Your task to perform on an android device: Open battery settings Image 0: 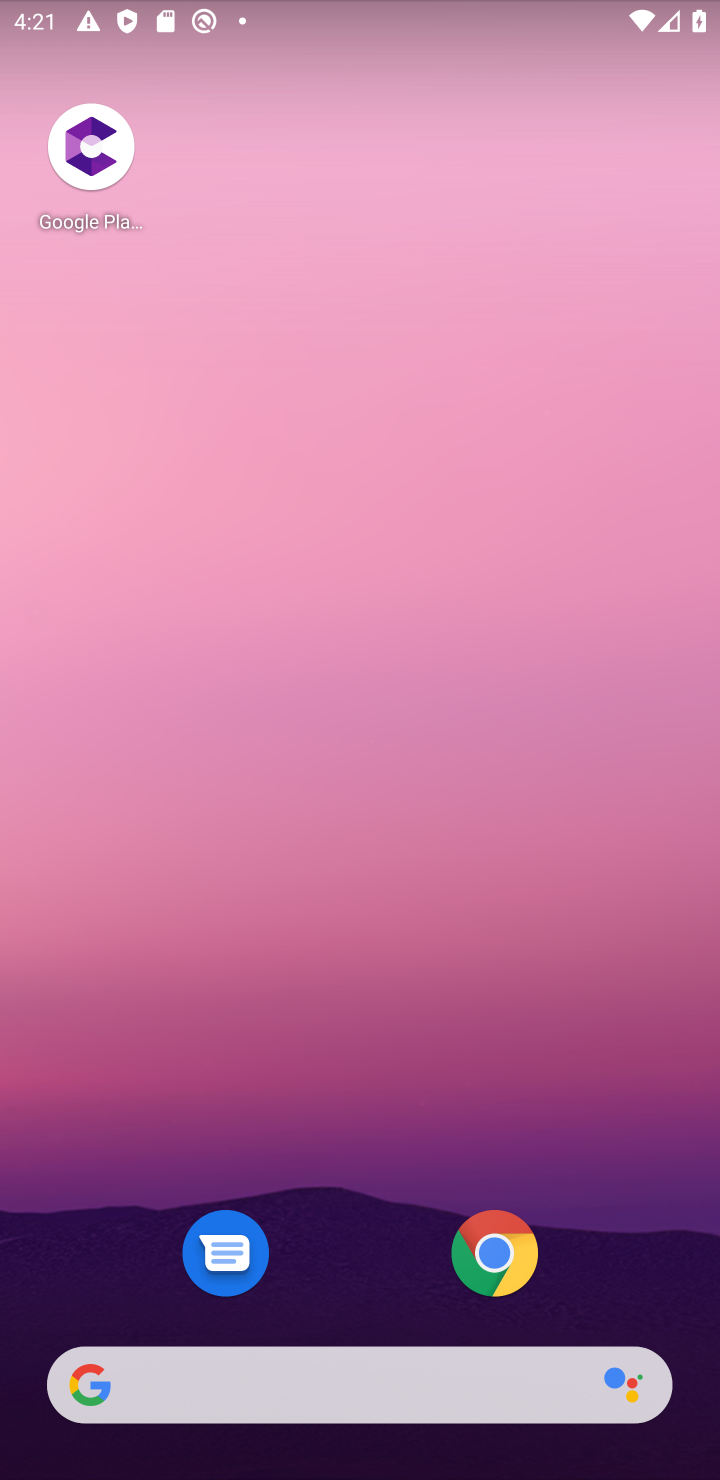
Step 0: drag from (364, 1305) to (334, 268)
Your task to perform on an android device: Open battery settings Image 1: 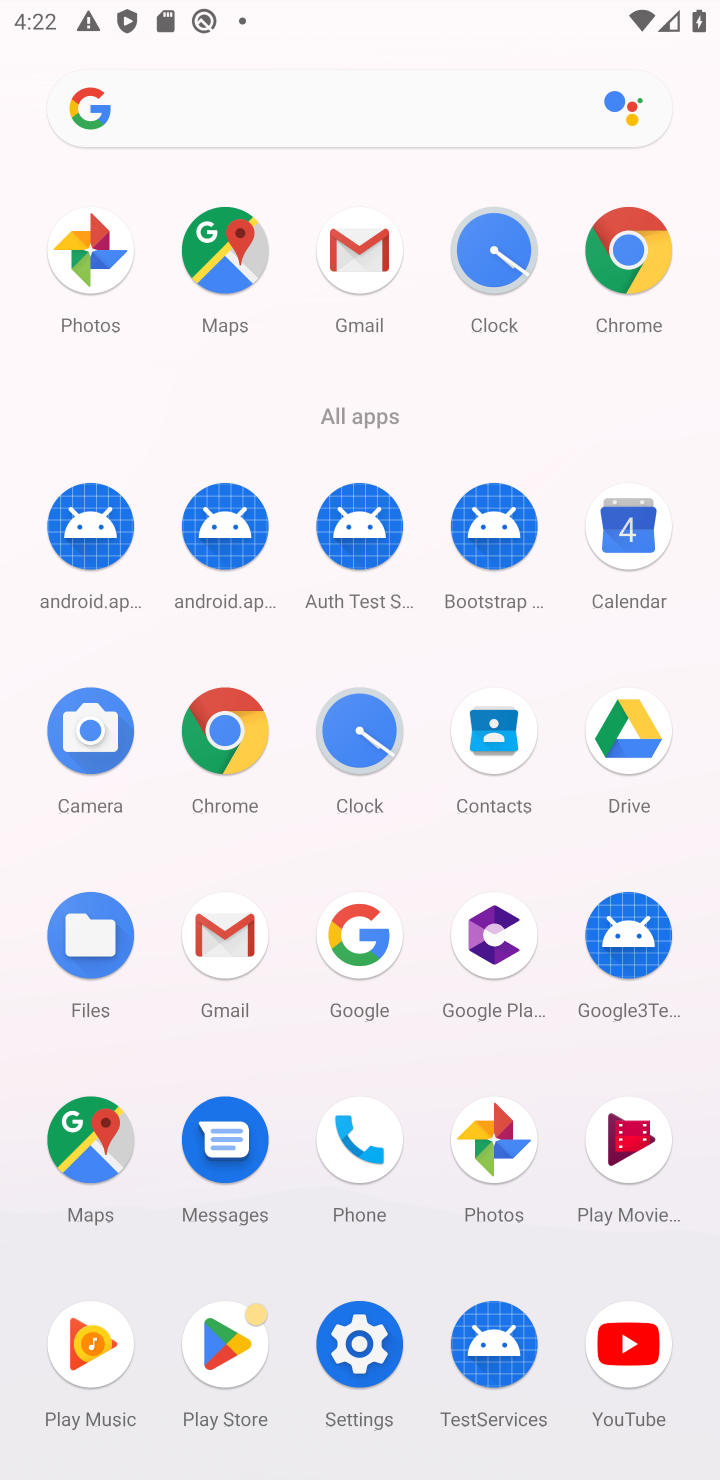
Step 1: click (356, 1348)
Your task to perform on an android device: Open battery settings Image 2: 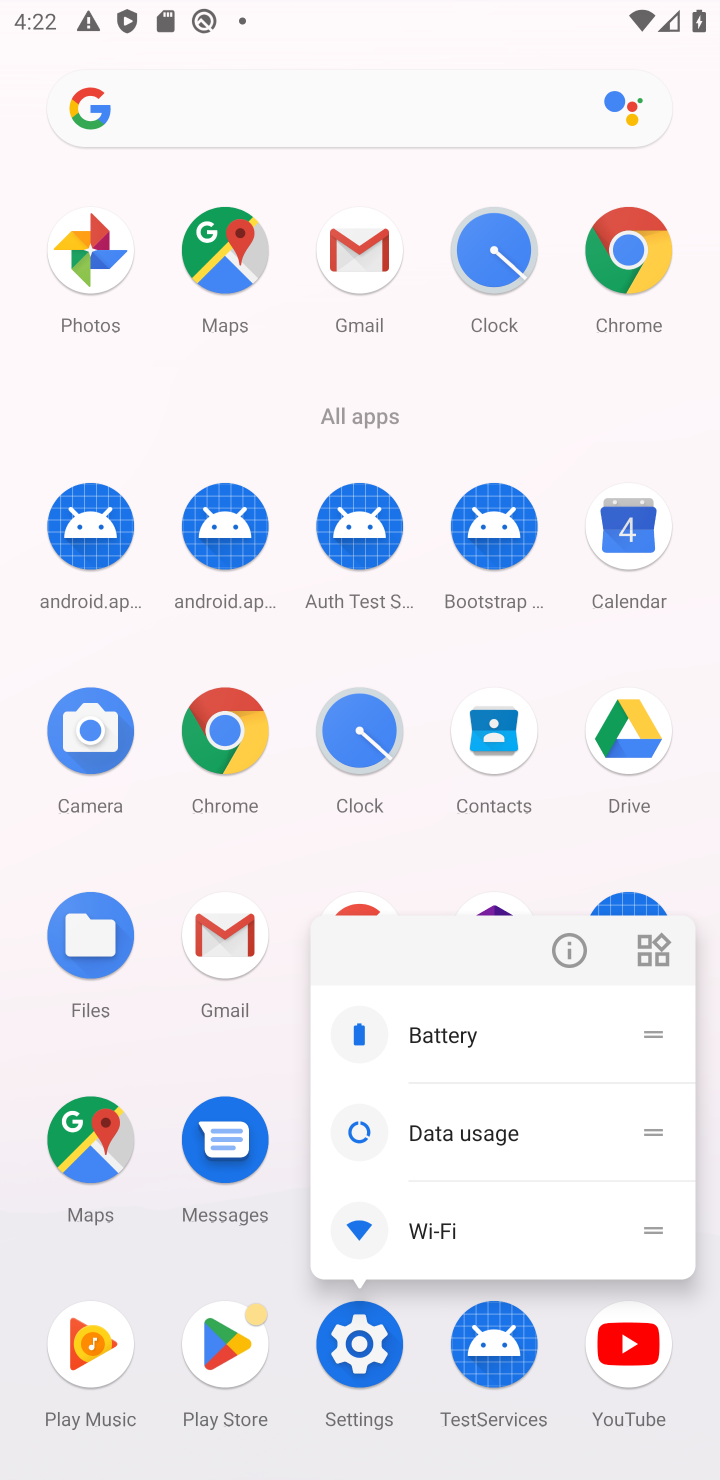
Step 2: click (356, 1348)
Your task to perform on an android device: Open battery settings Image 3: 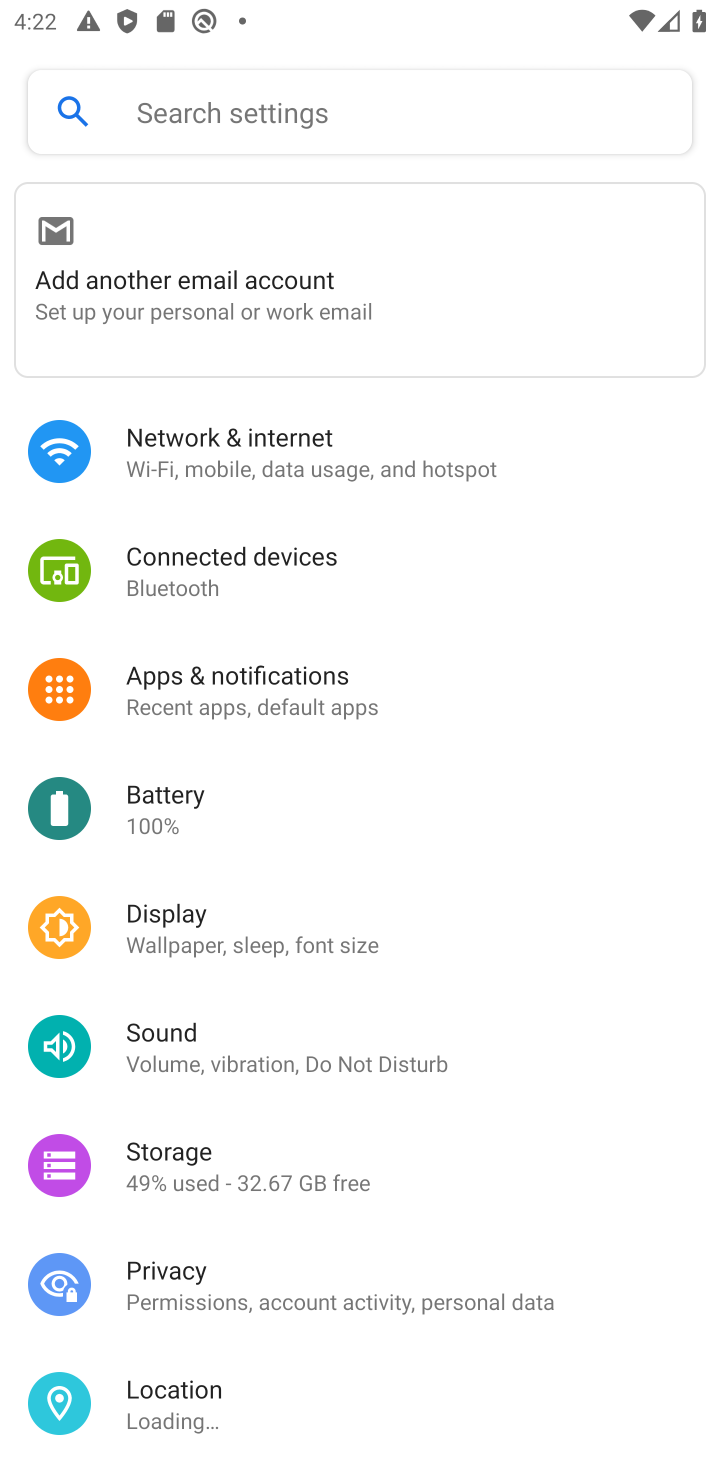
Step 3: click (181, 817)
Your task to perform on an android device: Open battery settings Image 4: 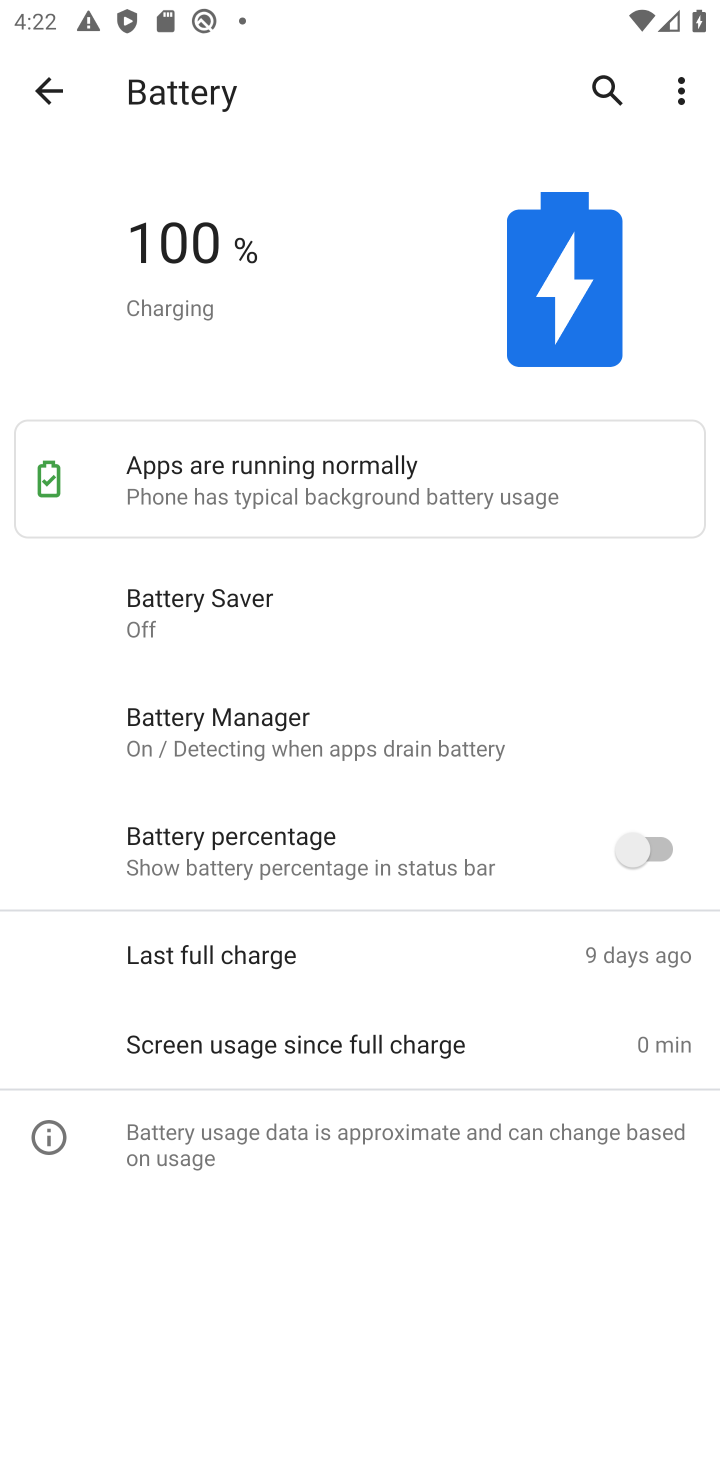
Step 4: task complete